Your task to perform on an android device: Open wifi settings Image 0: 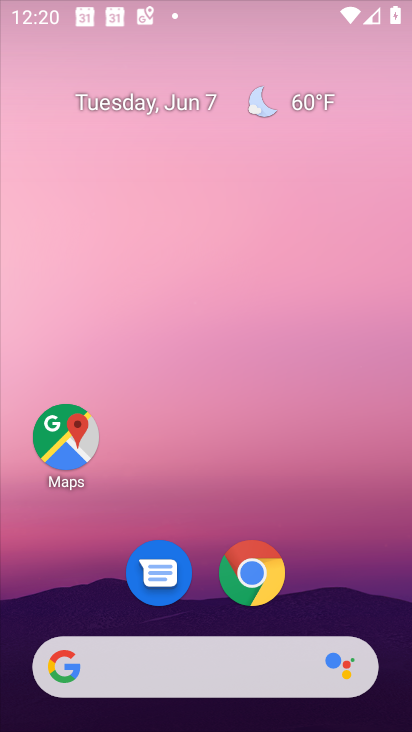
Step 0: press home button
Your task to perform on an android device: Open wifi settings Image 1: 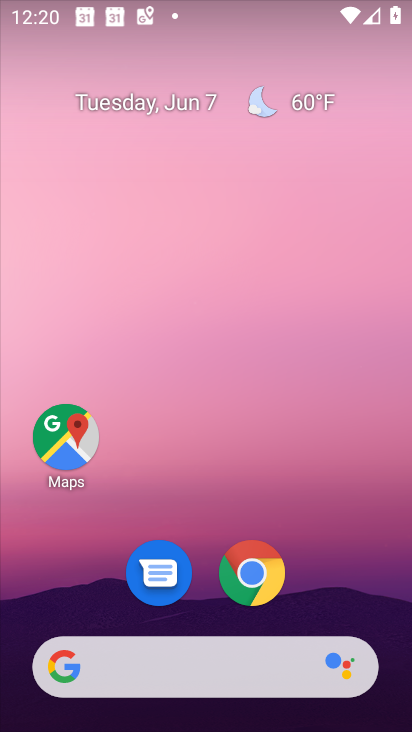
Step 1: drag from (358, 5) to (200, 595)
Your task to perform on an android device: Open wifi settings Image 2: 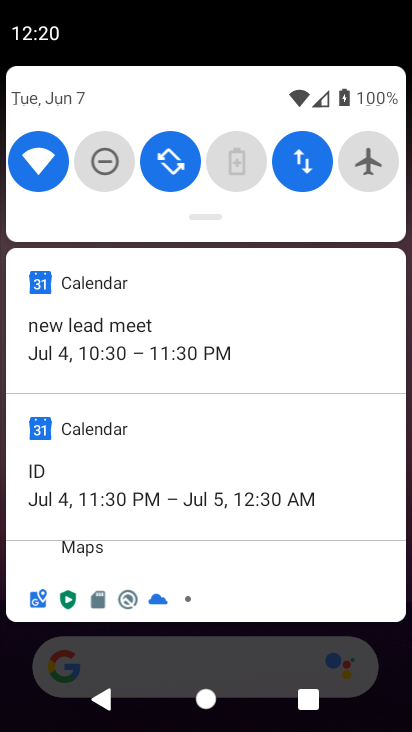
Step 2: click (27, 162)
Your task to perform on an android device: Open wifi settings Image 3: 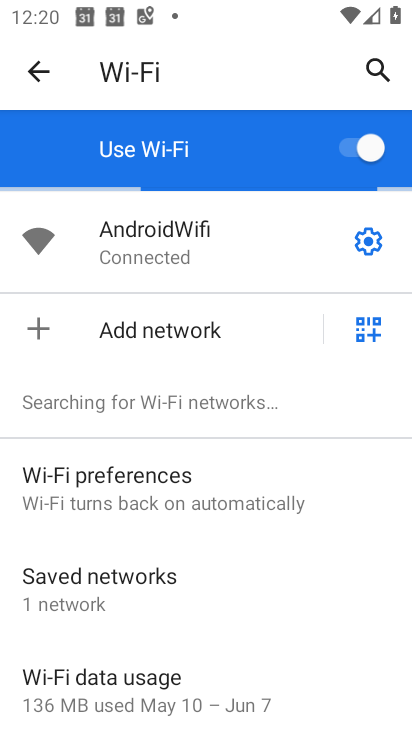
Step 3: task complete